Your task to perform on an android device: Open network settings Image 0: 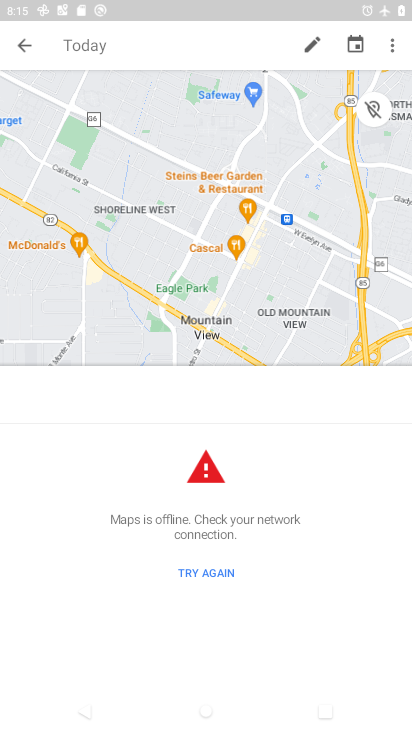
Step 0: press home button
Your task to perform on an android device: Open network settings Image 1: 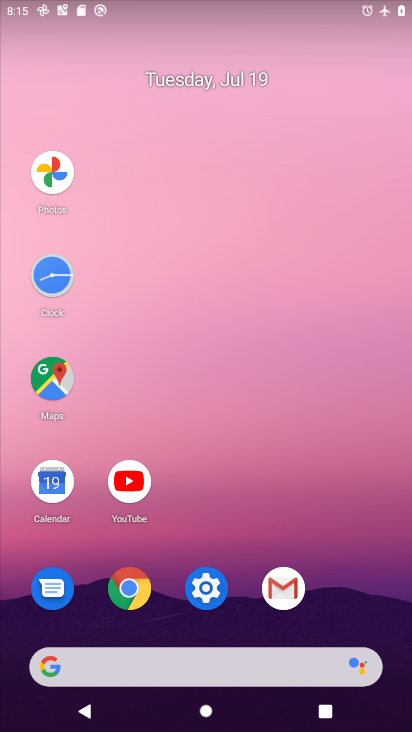
Step 1: click (200, 578)
Your task to perform on an android device: Open network settings Image 2: 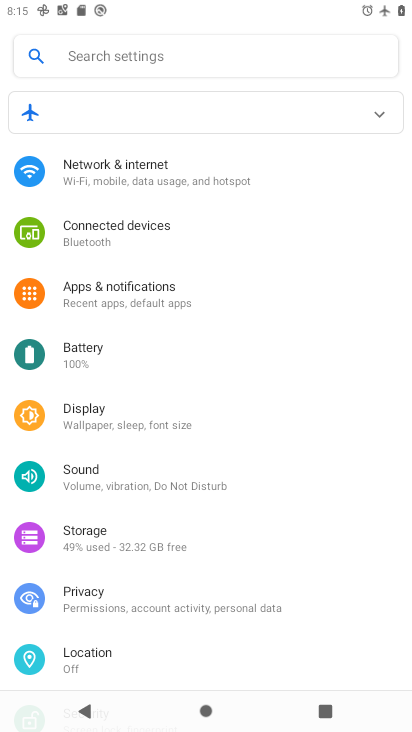
Step 2: click (124, 165)
Your task to perform on an android device: Open network settings Image 3: 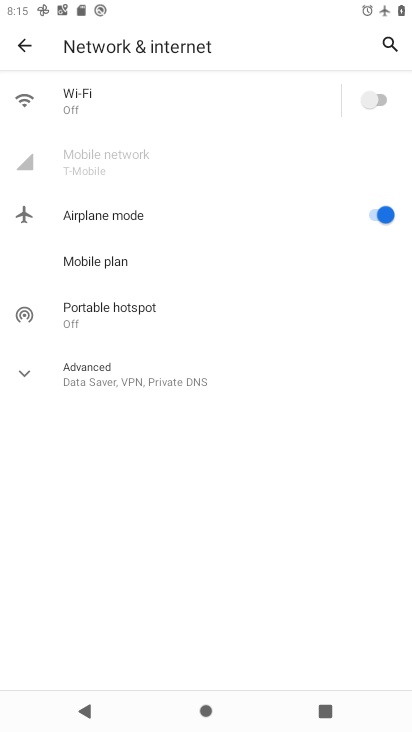
Step 3: task complete